Your task to perform on an android device: Go to CNN.com Image 0: 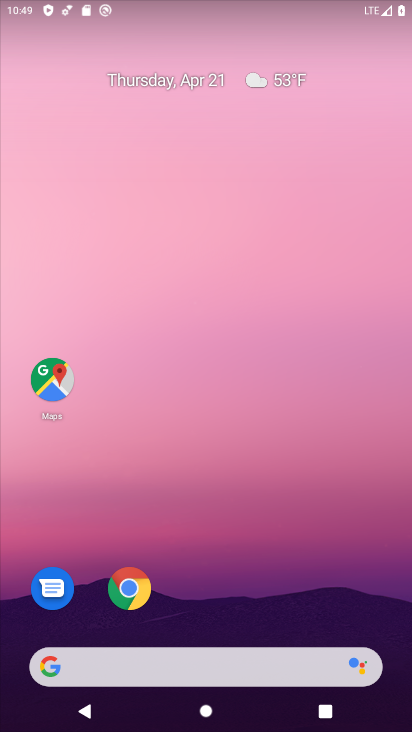
Step 0: drag from (180, 578) to (217, 279)
Your task to perform on an android device: Go to CNN.com Image 1: 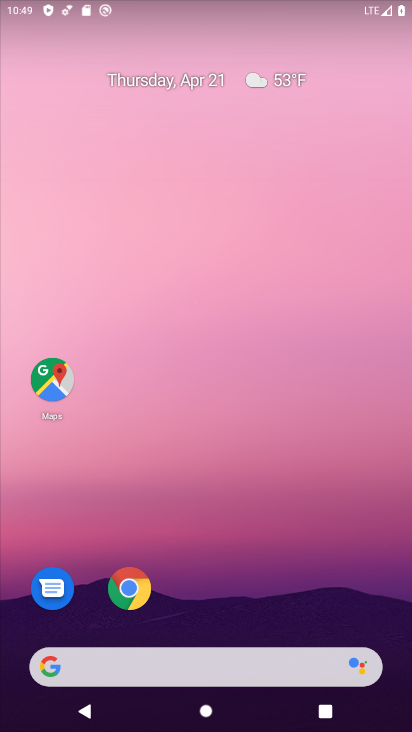
Step 1: drag from (224, 643) to (251, 297)
Your task to perform on an android device: Go to CNN.com Image 2: 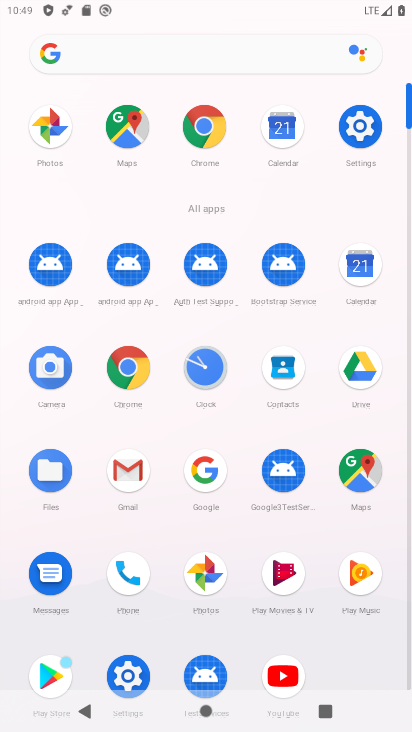
Step 2: click (212, 470)
Your task to perform on an android device: Go to CNN.com Image 3: 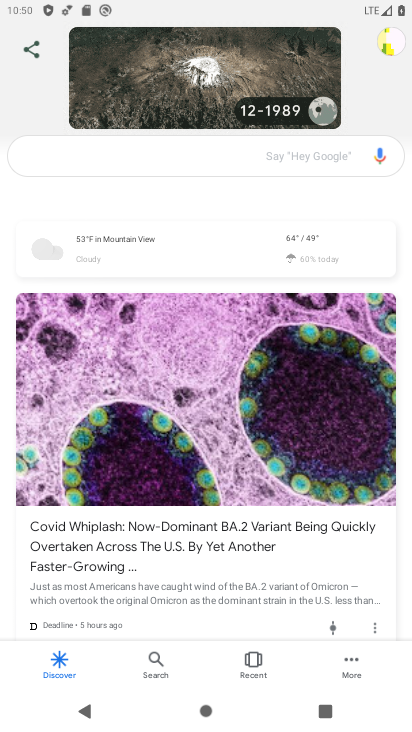
Step 3: click (171, 155)
Your task to perform on an android device: Go to CNN.com Image 4: 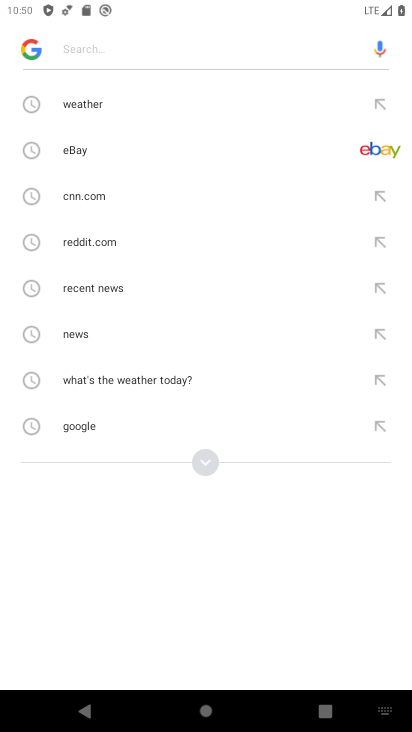
Step 4: click (97, 201)
Your task to perform on an android device: Go to CNN.com Image 5: 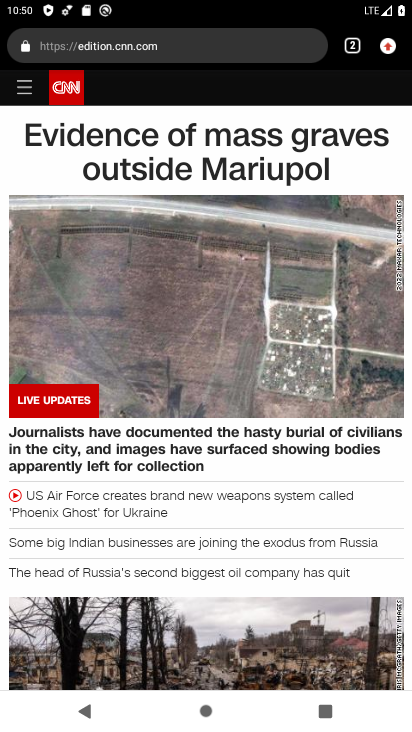
Step 5: task complete